Your task to perform on an android device: delete location history Image 0: 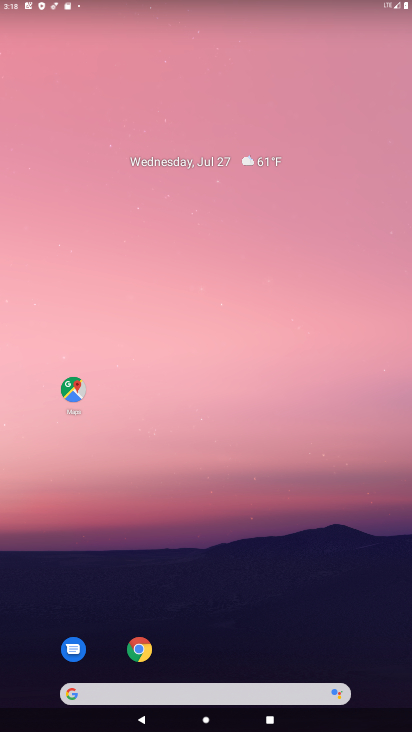
Step 0: drag from (206, 603) to (206, 79)
Your task to perform on an android device: delete location history Image 1: 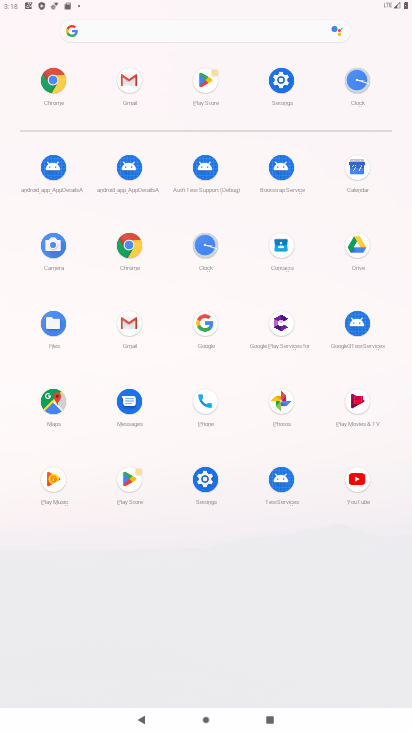
Step 1: click (49, 383)
Your task to perform on an android device: delete location history Image 2: 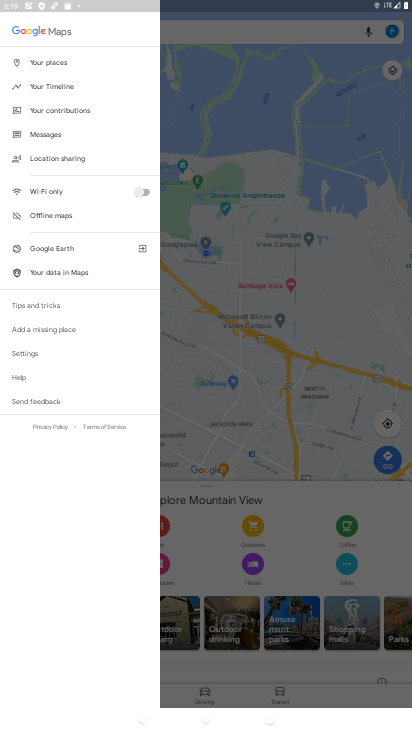
Step 2: click (70, 87)
Your task to perform on an android device: delete location history Image 3: 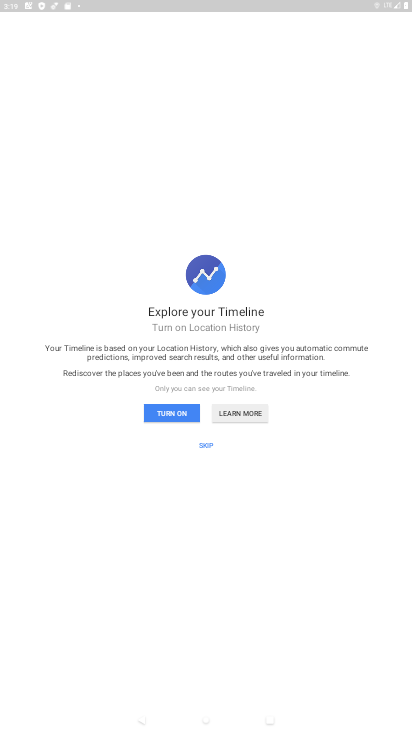
Step 3: click (169, 411)
Your task to perform on an android device: delete location history Image 4: 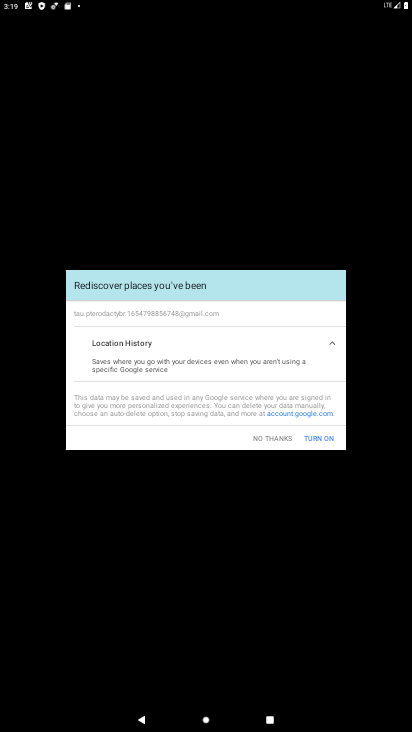
Step 4: click (398, 31)
Your task to perform on an android device: delete location history Image 5: 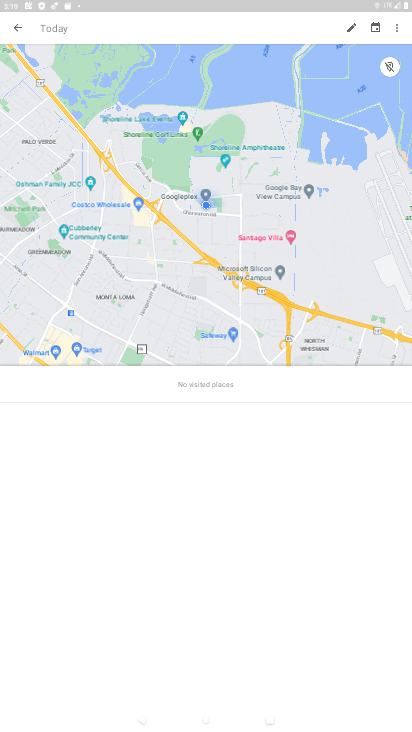
Step 5: click (396, 30)
Your task to perform on an android device: delete location history Image 6: 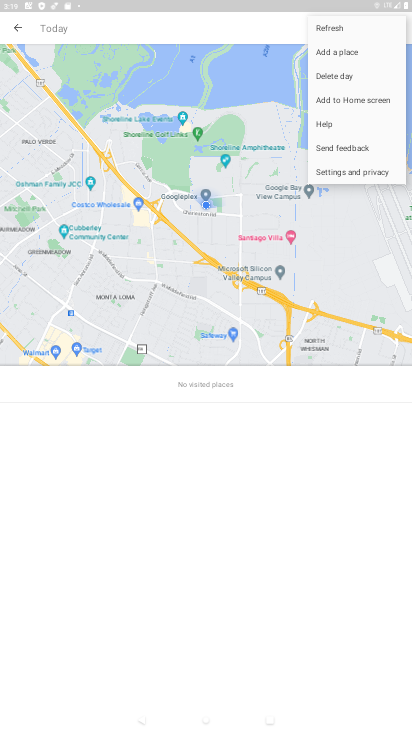
Step 6: click (355, 176)
Your task to perform on an android device: delete location history Image 7: 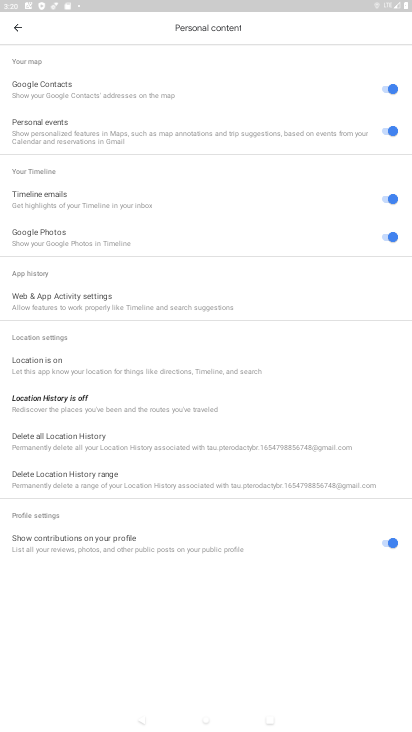
Step 7: click (76, 485)
Your task to perform on an android device: delete location history Image 8: 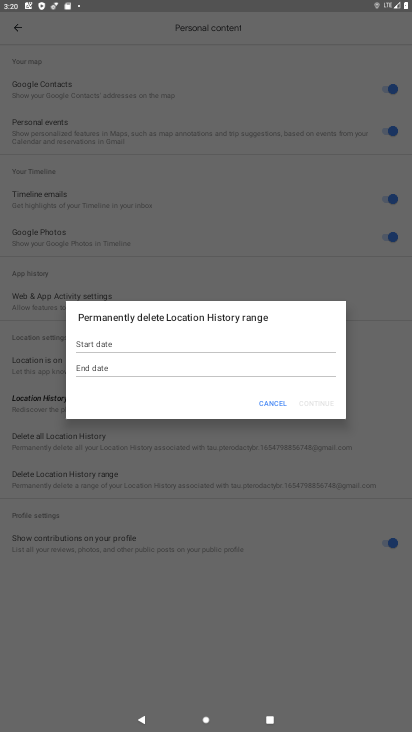
Step 8: click (97, 344)
Your task to perform on an android device: delete location history Image 9: 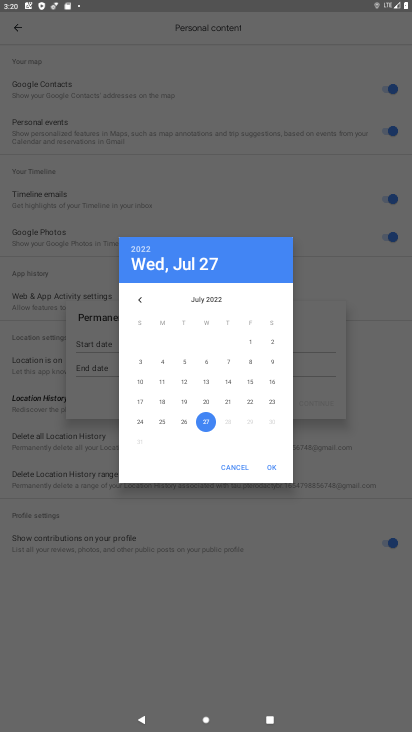
Step 9: click (251, 344)
Your task to perform on an android device: delete location history Image 10: 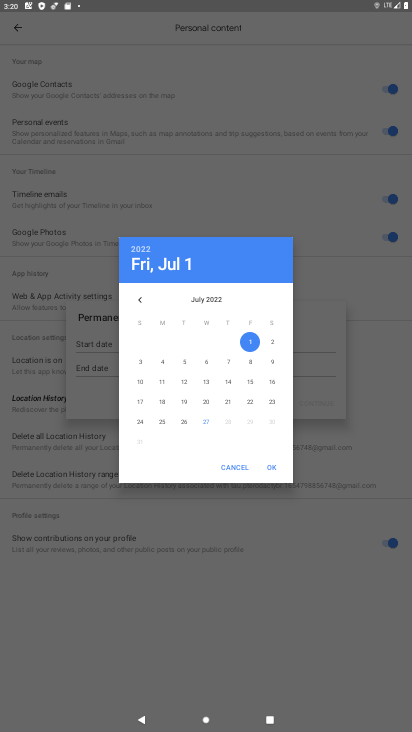
Step 10: click (270, 465)
Your task to perform on an android device: delete location history Image 11: 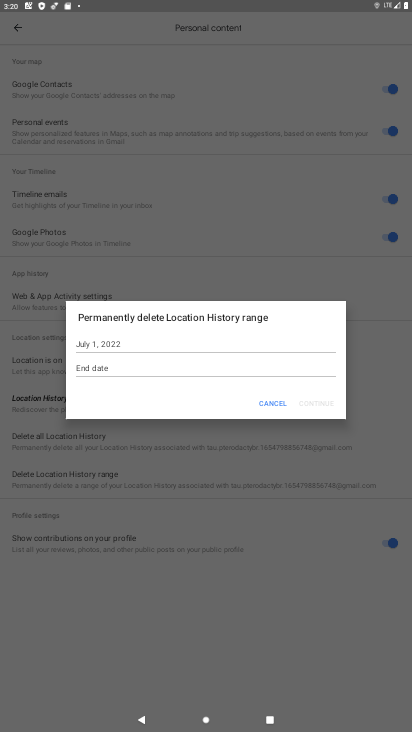
Step 11: click (115, 370)
Your task to perform on an android device: delete location history Image 12: 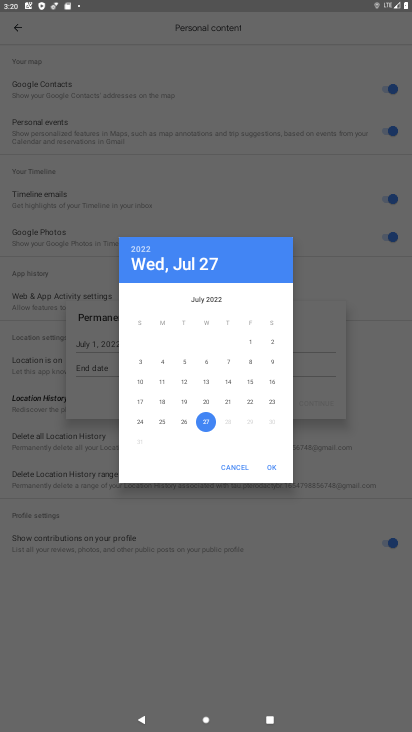
Step 12: click (208, 423)
Your task to perform on an android device: delete location history Image 13: 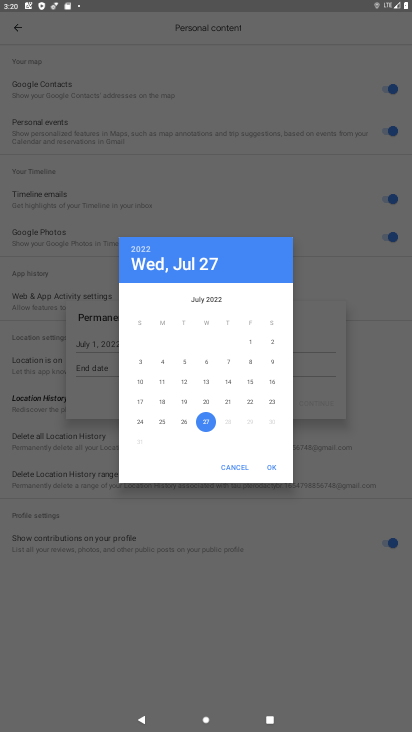
Step 13: click (208, 423)
Your task to perform on an android device: delete location history Image 14: 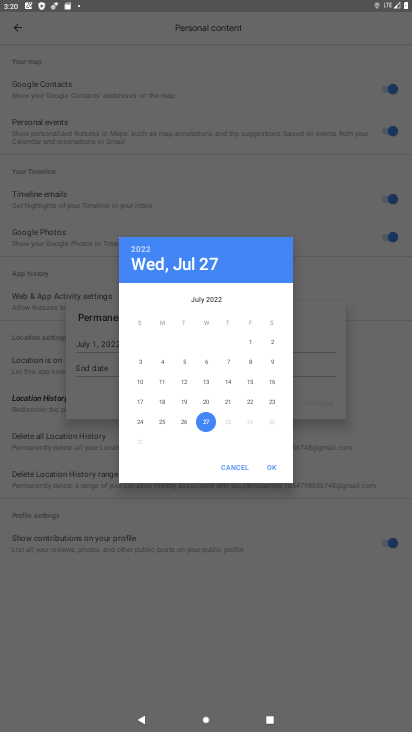
Step 14: click (278, 472)
Your task to perform on an android device: delete location history Image 15: 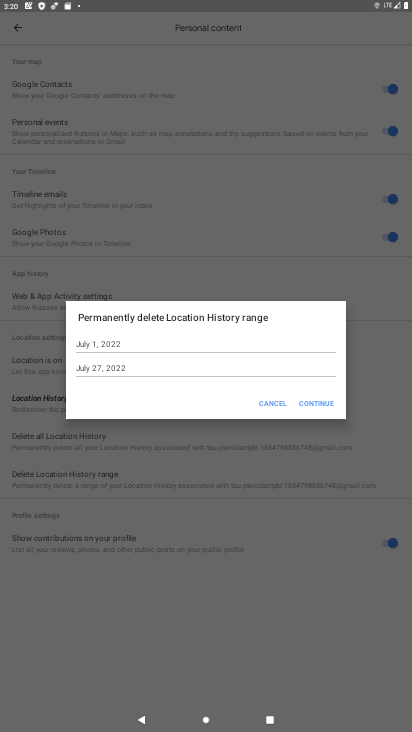
Step 15: click (315, 401)
Your task to perform on an android device: delete location history Image 16: 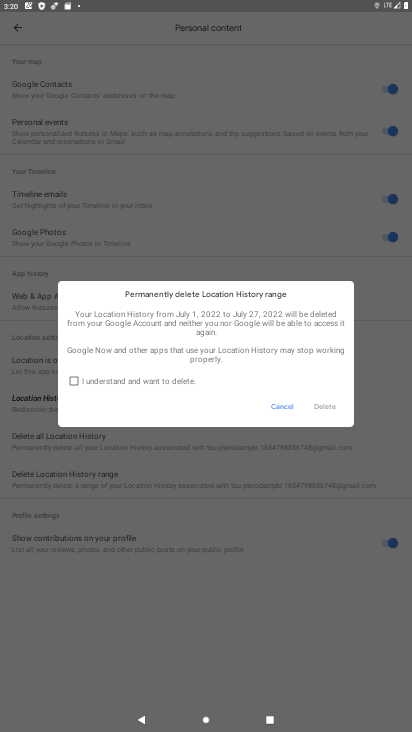
Step 16: click (72, 380)
Your task to perform on an android device: delete location history Image 17: 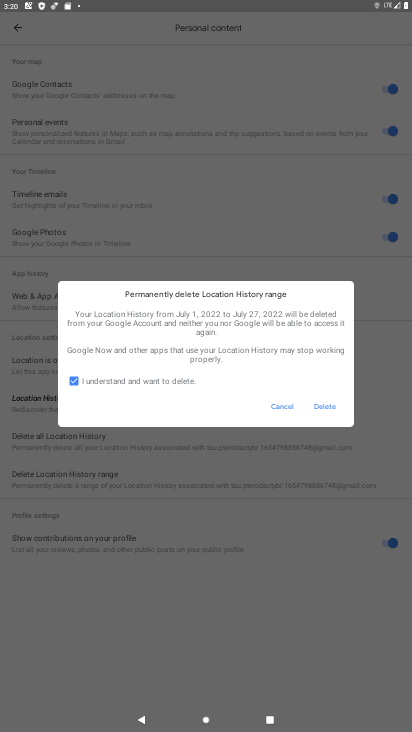
Step 17: click (331, 400)
Your task to perform on an android device: delete location history Image 18: 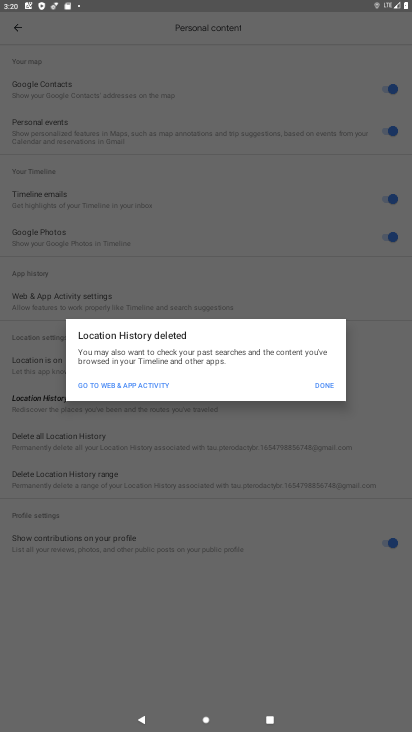
Step 18: click (321, 381)
Your task to perform on an android device: delete location history Image 19: 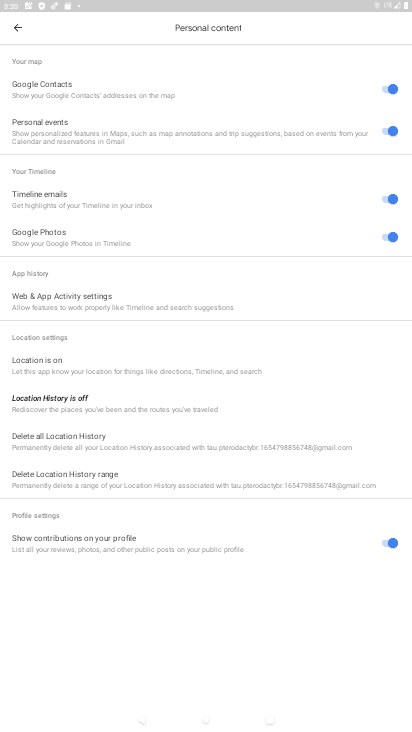
Step 19: task complete